Your task to perform on an android device: Open the calendar and show me this week's events Image 0: 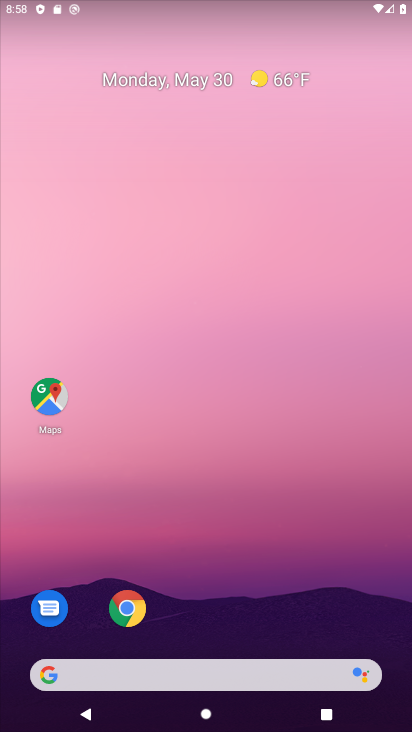
Step 0: drag from (223, 725) to (209, 257)
Your task to perform on an android device: Open the calendar and show me this week's events Image 1: 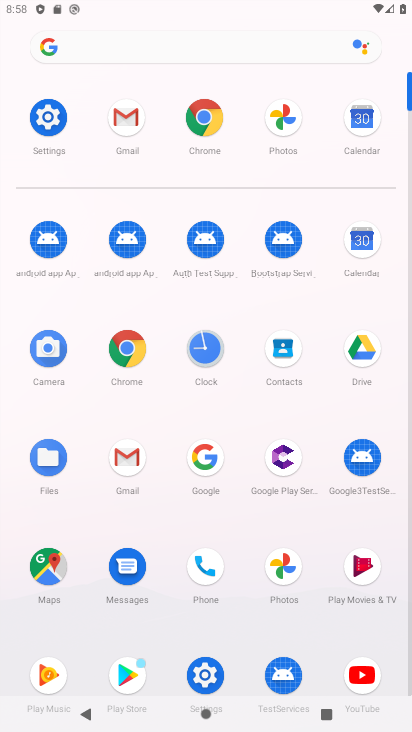
Step 1: click (361, 244)
Your task to perform on an android device: Open the calendar and show me this week's events Image 2: 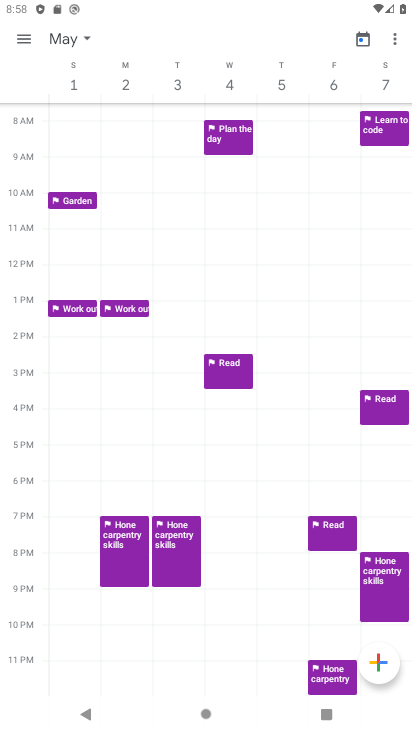
Step 2: click (85, 39)
Your task to perform on an android device: Open the calendar and show me this week's events Image 3: 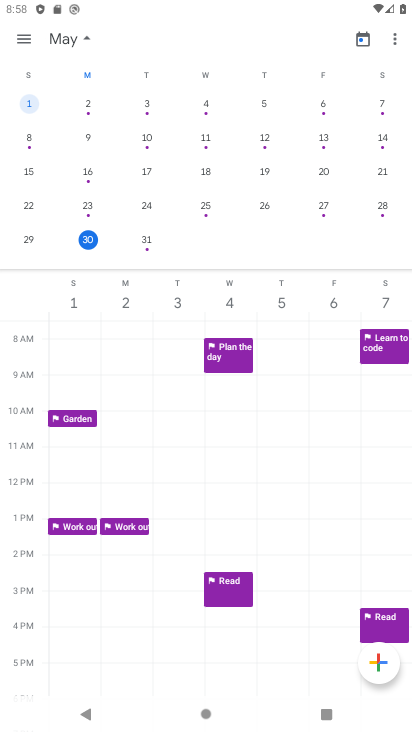
Step 3: click (89, 235)
Your task to perform on an android device: Open the calendar and show me this week's events Image 4: 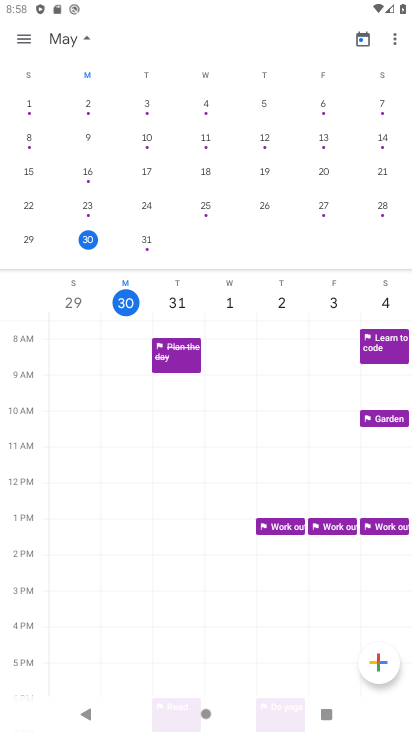
Step 4: task complete